Your task to perform on an android device: turn on location history Image 0: 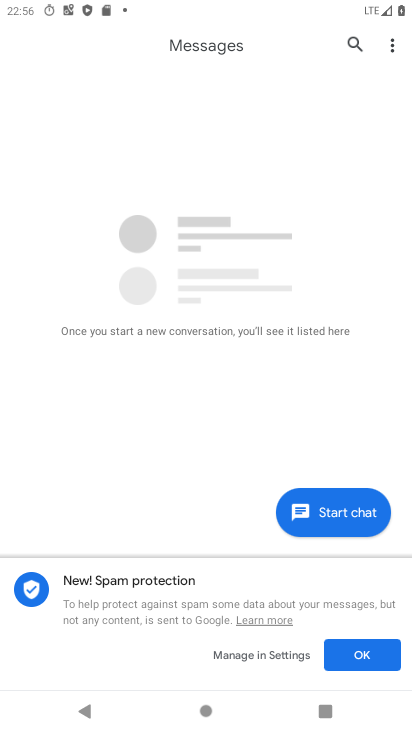
Step 0: press home button
Your task to perform on an android device: turn on location history Image 1: 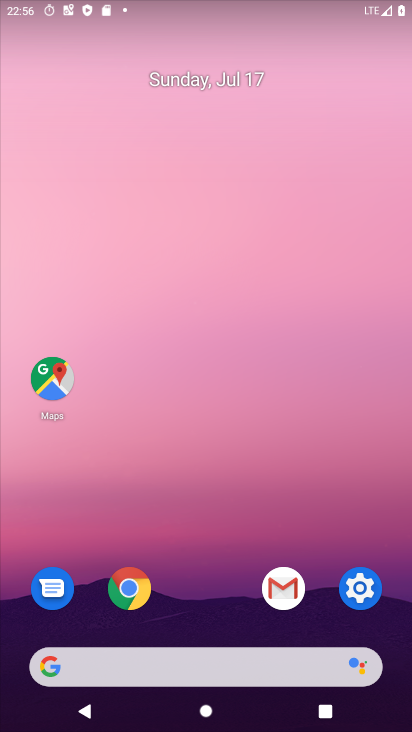
Step 1: click (352, 586)
Your task to perform on an android device: turn on location history Image 2: 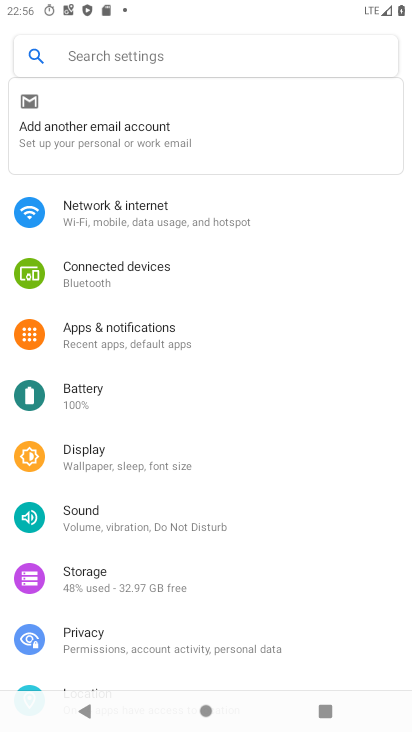
Step 2: drag from (137, 646) to (133, 603)
Your task to perform on an android device: turn on location history Image 3: 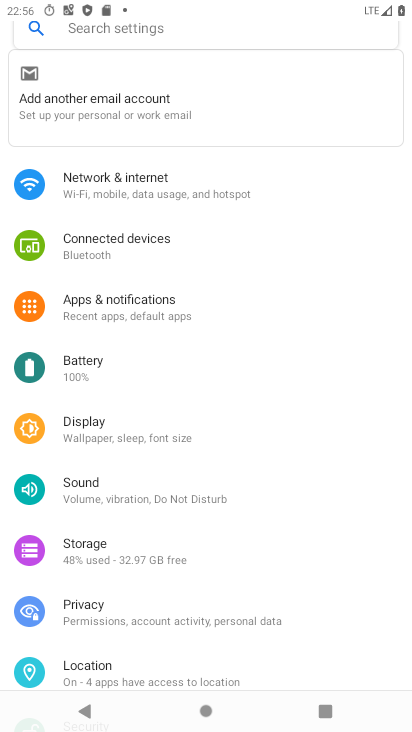
Step 3: click (139, 658)
Your task to perform on an android device: turn on location history Image 4: 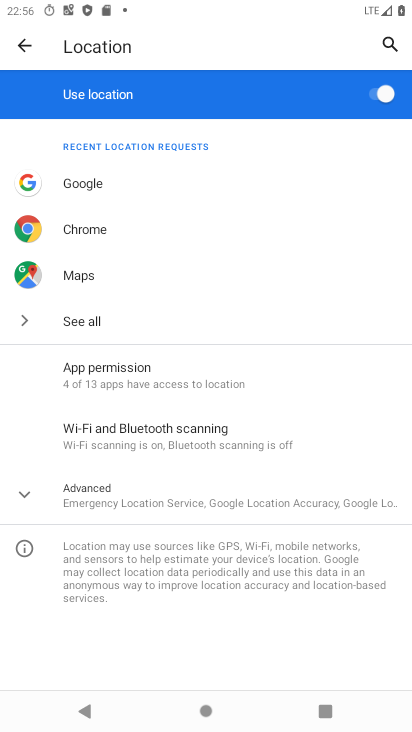
Step 4: click (29, 500)
Your task to perform on an android device: turn on location history Image 5: 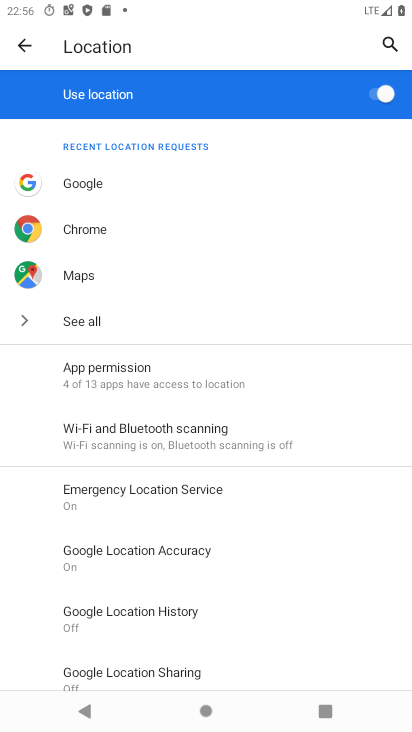
Step 5: click (176, 594)
Your task to perform on an android device: turn on location history Image 6: 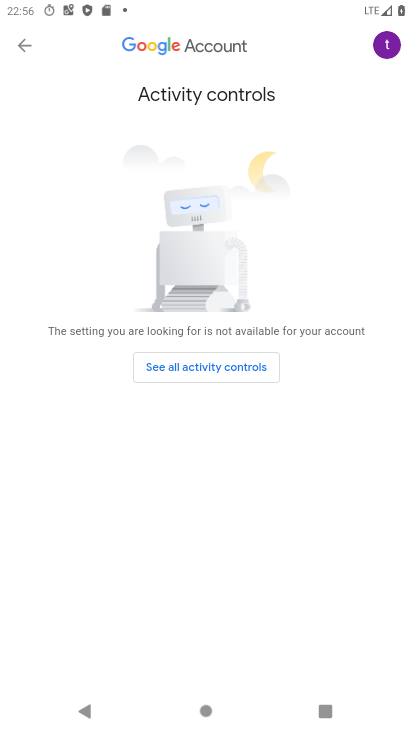
Step 6: click (235, 373)
Your task to perform on an android device: turn on location history Image 7: 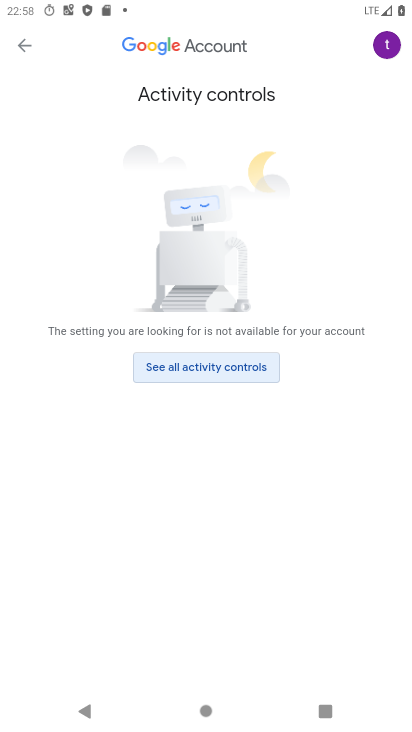
Step 7: task complete